Your task to perform on an android device: Open privacy settings Image 0: 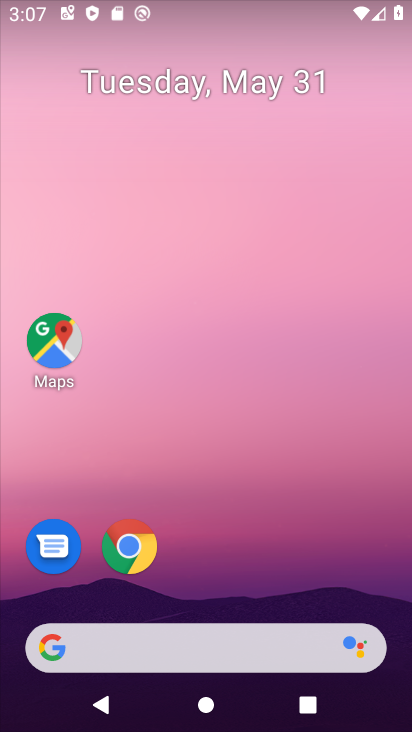
Step 0: drag from (265, 531) to (253, 70)
Your task to perform on an android device: Open privacy settings Image 1: 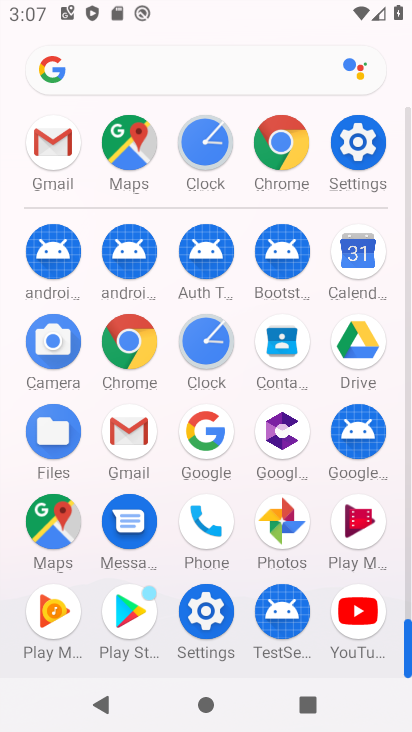
Step 1: click (355, 149)
Your task to perform on an android device: Open privacy settings Image 2: 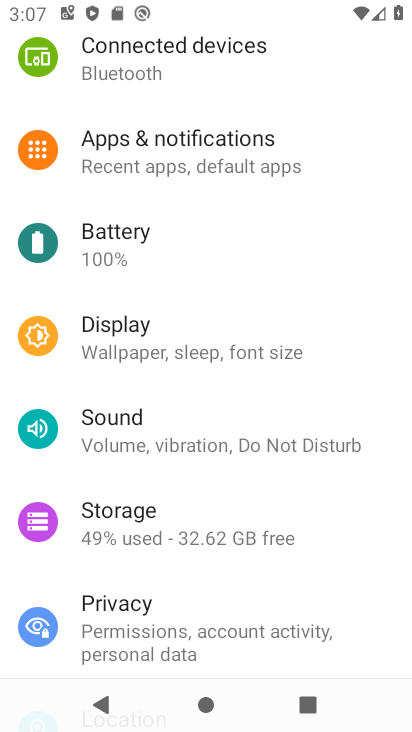
Step 2: click (202, 616)
Your task to perform on an android device: Open privacy settings Image 3: 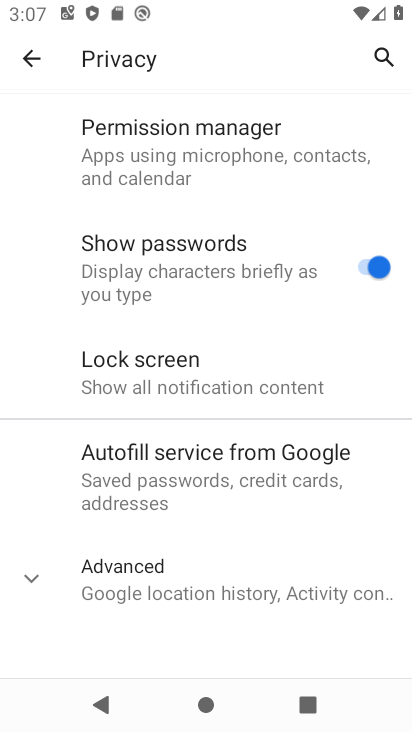
Step 3: task complete